Your task to perform on an android device: see sites visited before in the chrome app Image 0: 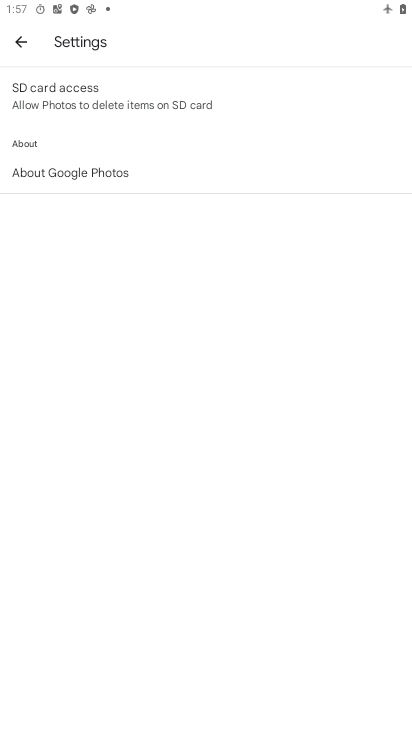
Step 0: press home button
Your task to perform on an android device: see sites visited before in the chrome app Image 1: 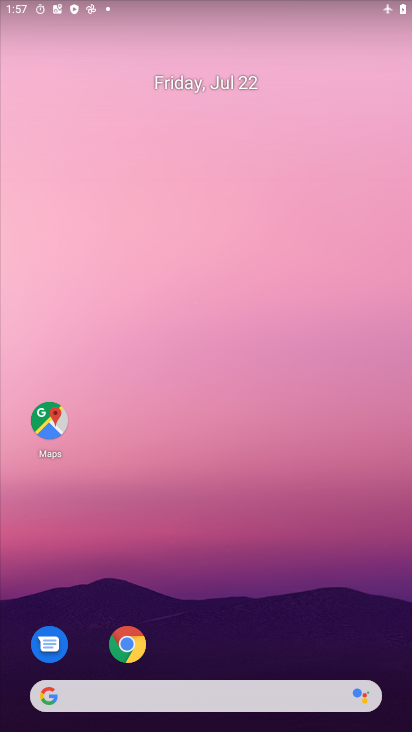
Step 1: drag from (226, 668) to (227, 238)
Your task to perform on an android device: see sites visited before in the chrome app Image 2: 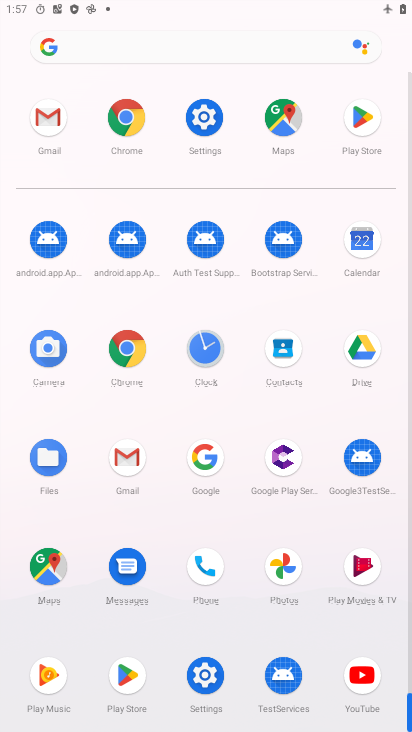
Step 2: click (138, 374)
Your task to perform on an android device: see sites visited before in the chrome app Image 3: 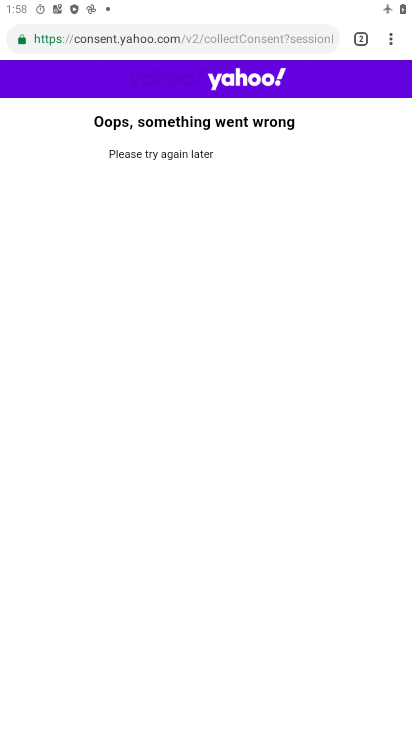
Step 3: click (387, 40)
Your task to perform on an android device: see sites visited before in the chrome app Image 4: 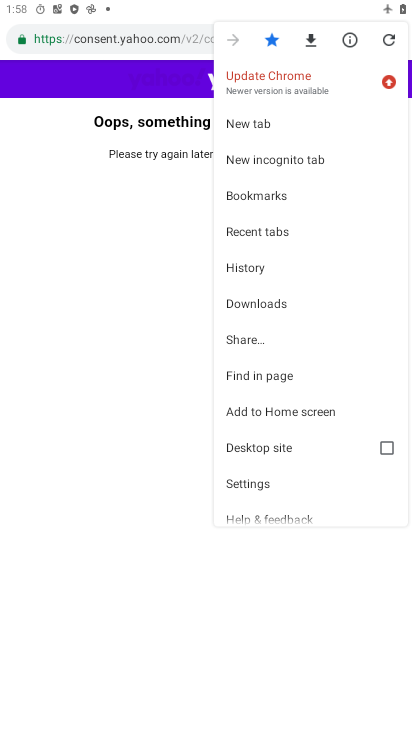
Step 4: click (270, 267)
Your task to perform on an android device: see sites visited before in the chrome app Image 5: 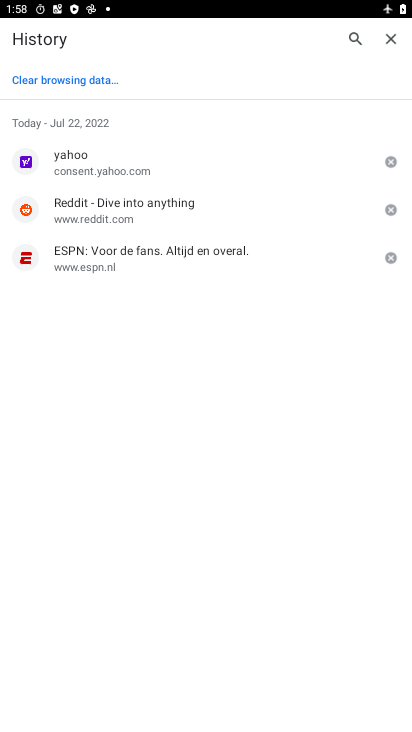
Step 5: task complete